Your task to perform on an android device: empty trash in google photos Image 0: 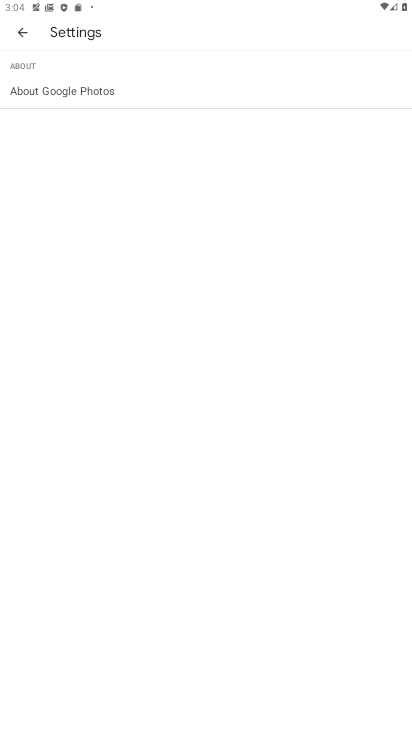
Step 0: press home button
Your task to perform on an android device: empty trash in google photos Image 1: 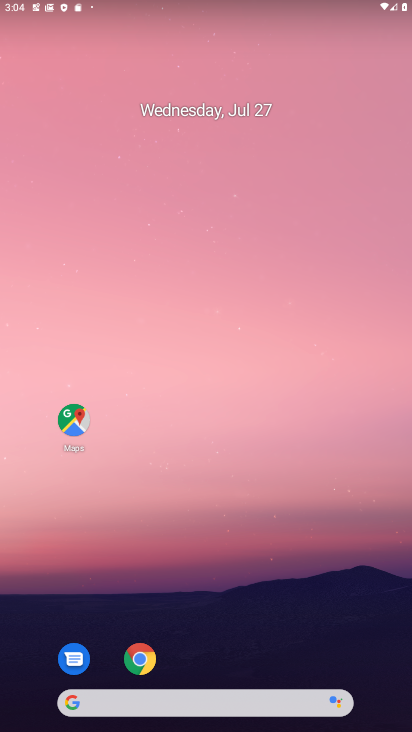
Step 1: drag from (220, 687) to (220, 261)
Your task to perform on an android device: empty trash in google photos Image 2: 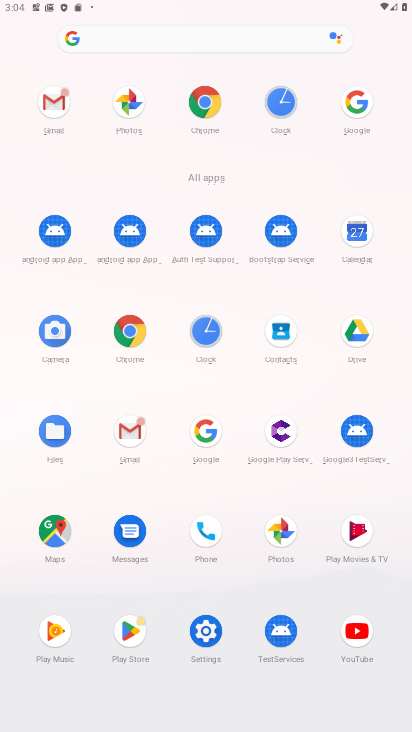
Step 2: click (275, 531)
Your task to perform on an android device: empty trash in google photos Image 3: 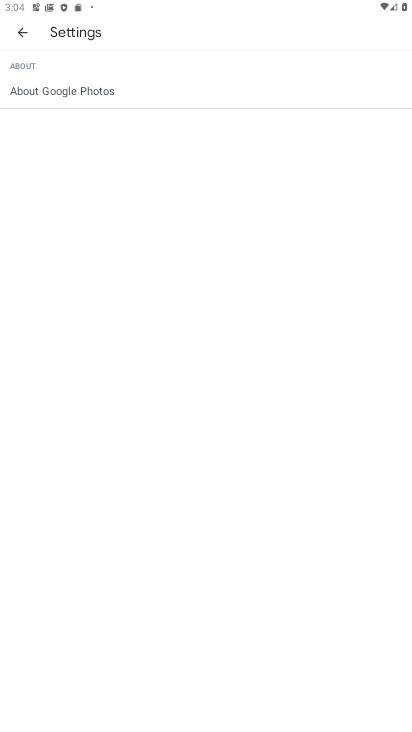
Step 3: click (16, 33)
Your task to perform on an android device: empty trash in google photos Image 4: 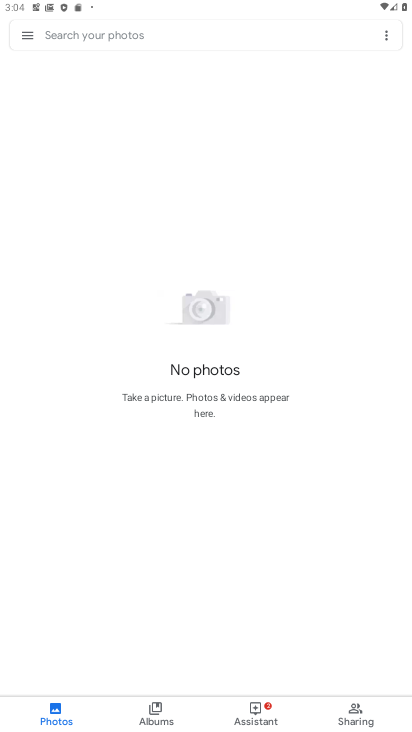
Step 4: click (20, 36)
Your task to perform on an android device: empty trash in google photos Image 5: 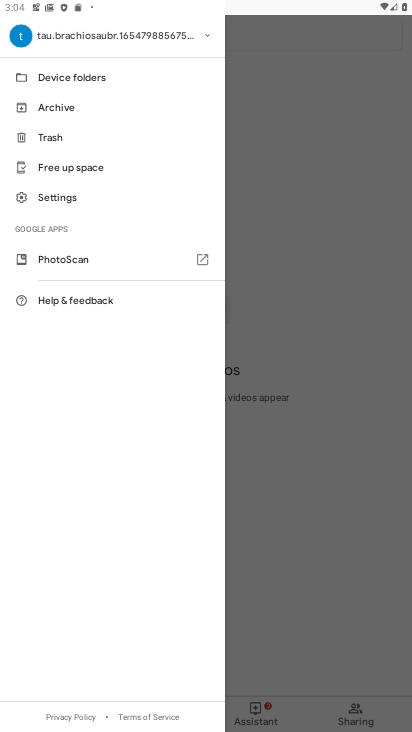
Step 5: click (42, 135)
Your task to perform on an android device: empty trash in google photos Image 6: 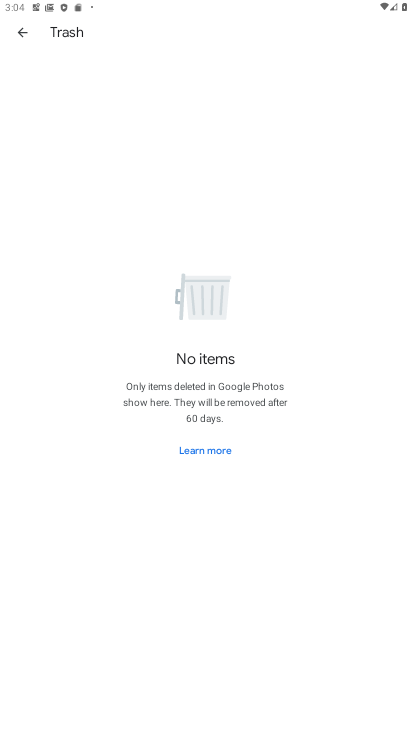
Step 6: task complete